Your task to perform on an android device: Do I have any events today? Image 0: 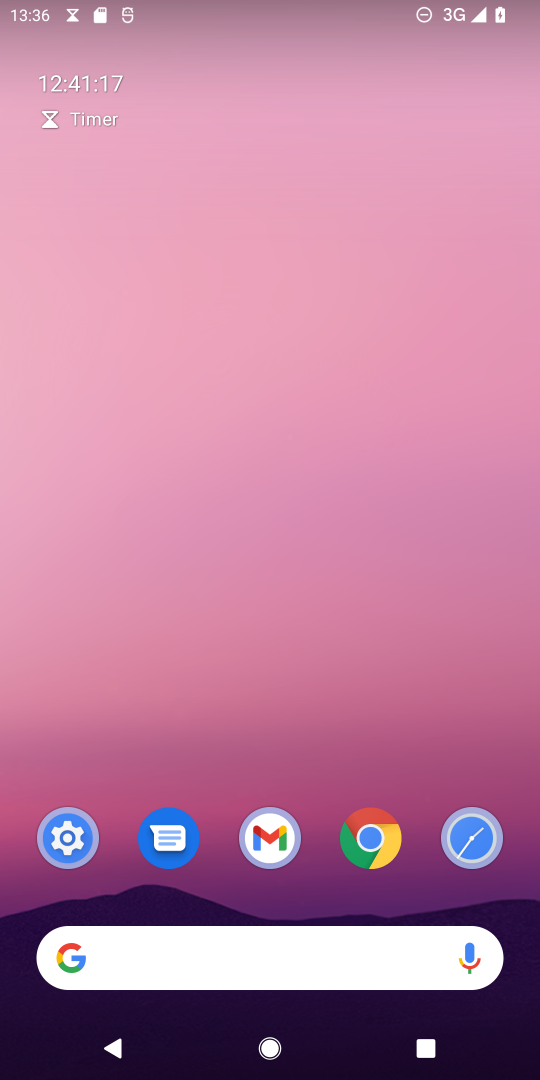
Step 0: press home button
Your task to perform on an android device: Do I have any events today? Image 1: 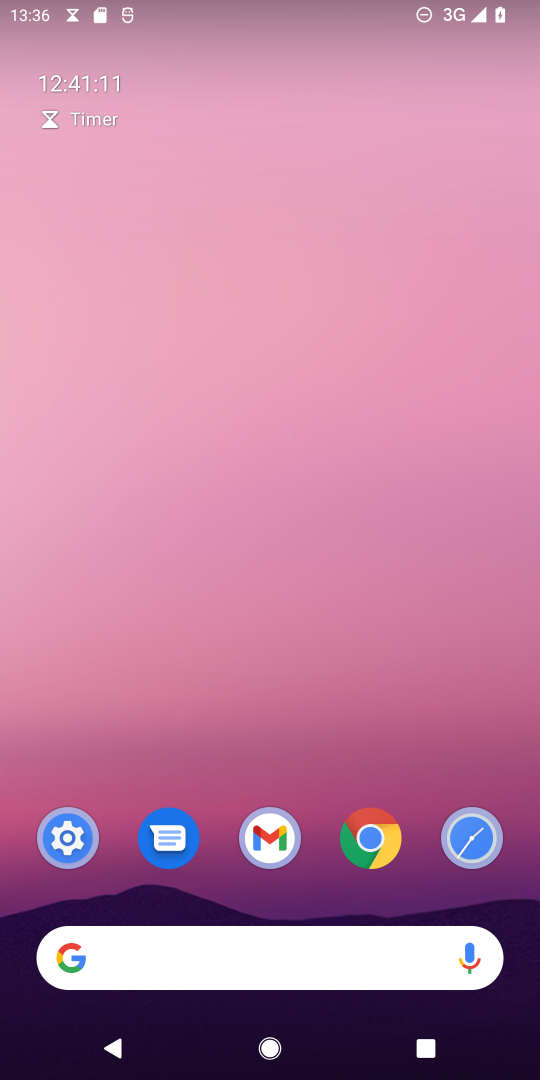
Step 1: drag from (318, 816) to (240, 225)
Your task to perform on an android device: Do I have any events today? Image 2: 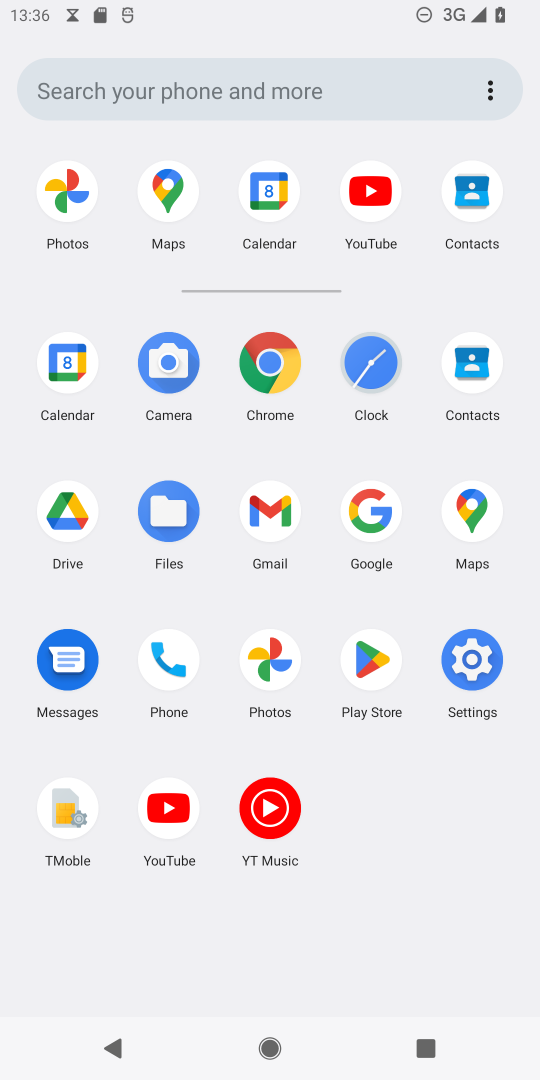
Step 2: click (70, 361)
Your task to perform on an android device: Do I have any events today? Image 3: 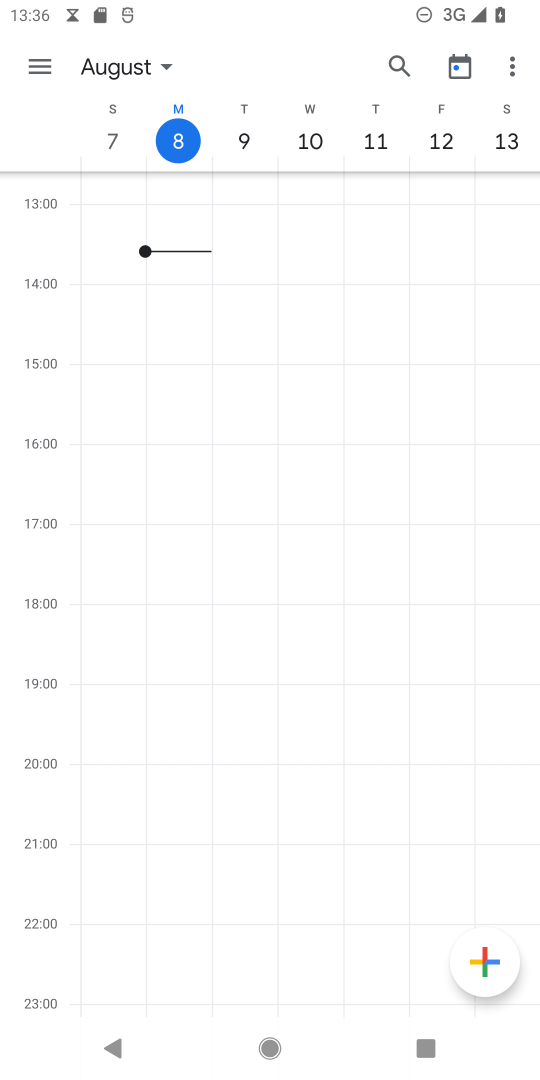
Step 3: click (160, 56)
Your task to perform on an android device: Do I have any events today? Image 4: 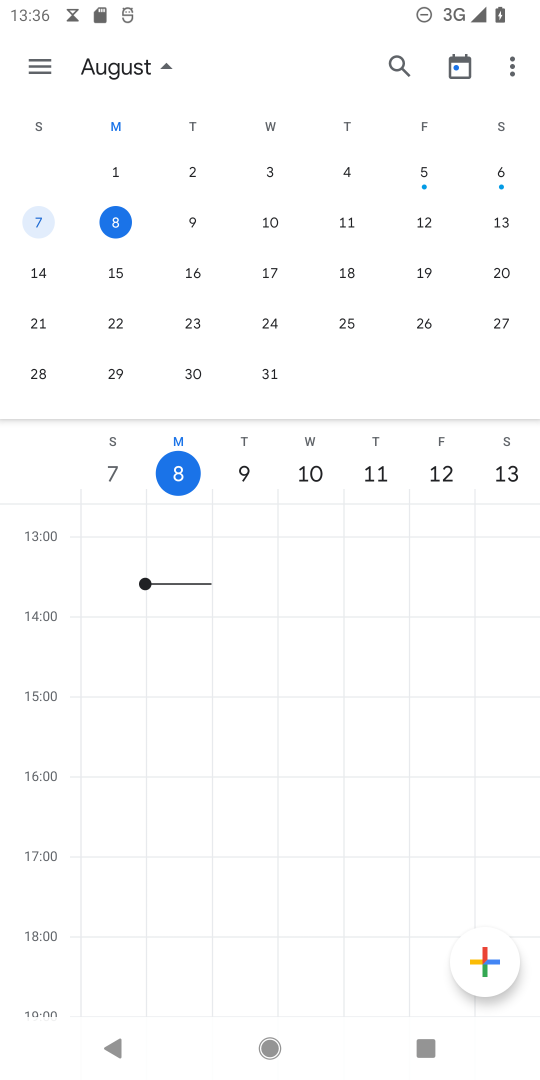
Step 4: click (119, 211)
Your task to perform on an android device: Do I have any events today? Image 5: 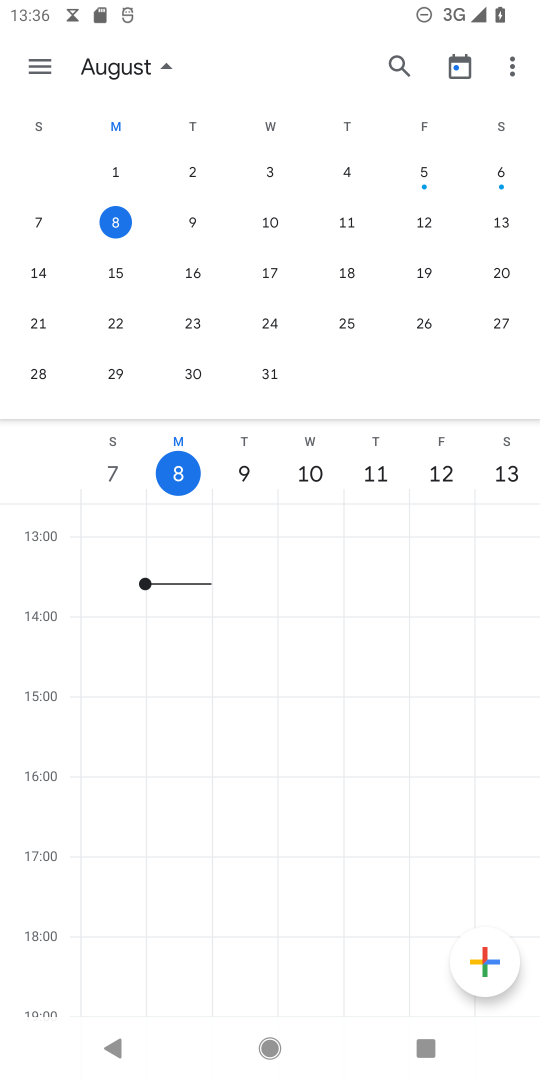
Step 5: task complete